Your task to perform on an android device: Find coffee shops on Maps Image 0: 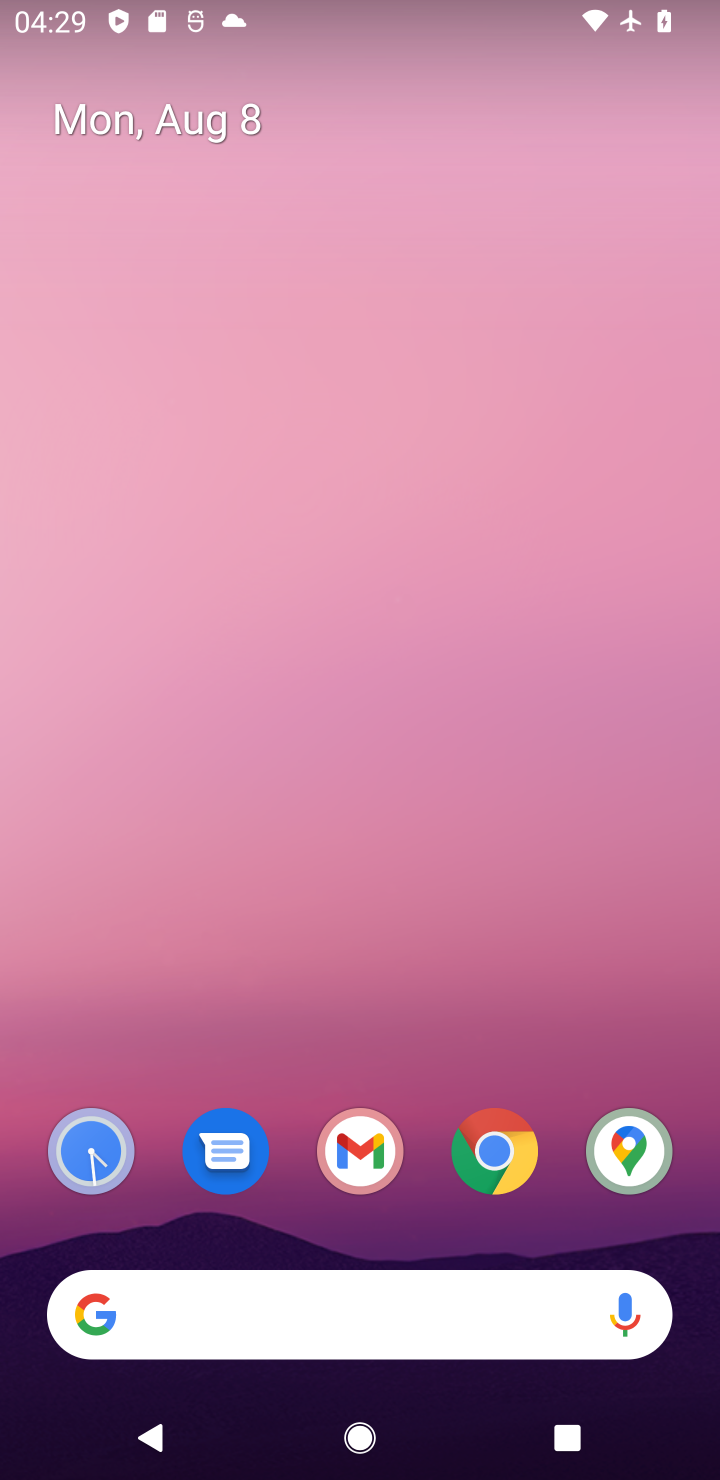
Step 0: click (610, 1134)
Your task to perform on an android device: Find coffee shops on Maps Image 1: 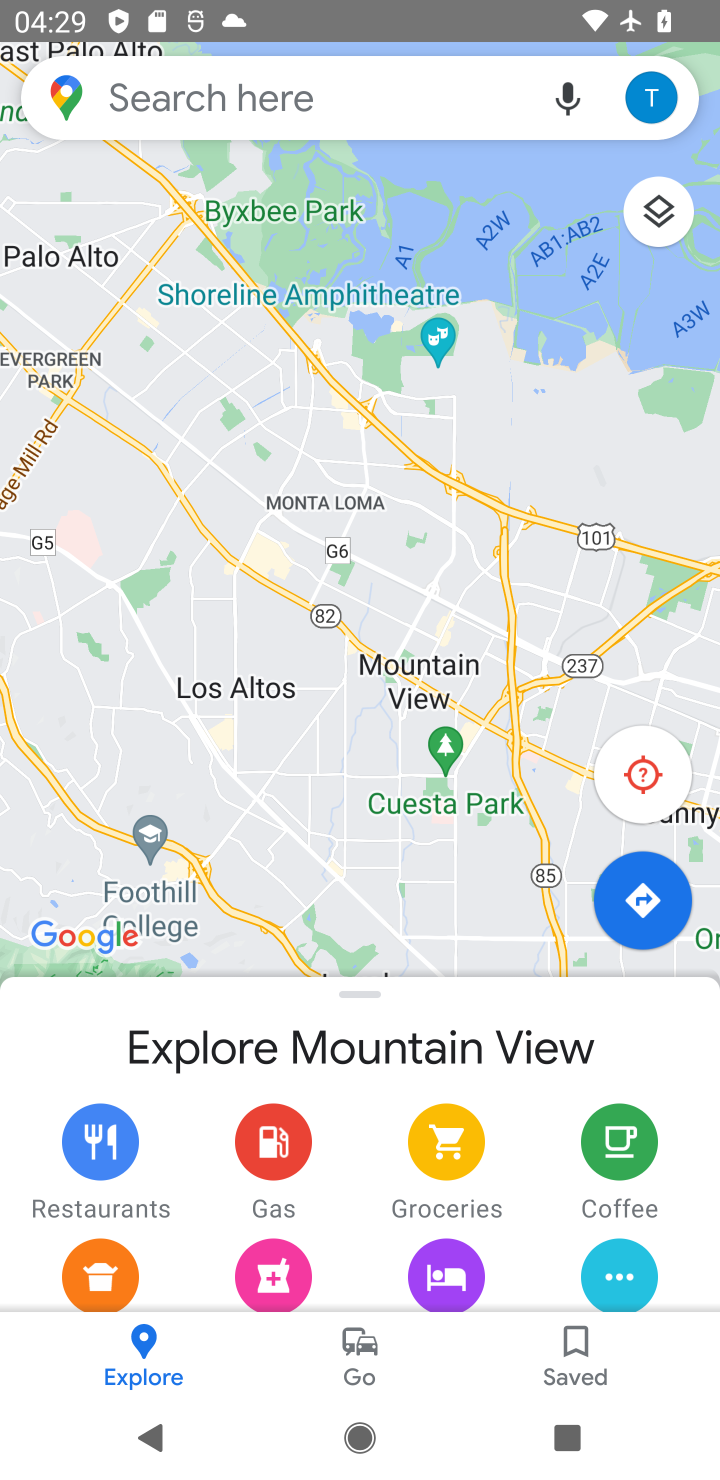
Step 1: click (257, 92)
Your task to perform on an android device: Find coffee shops on Maps Image 2: 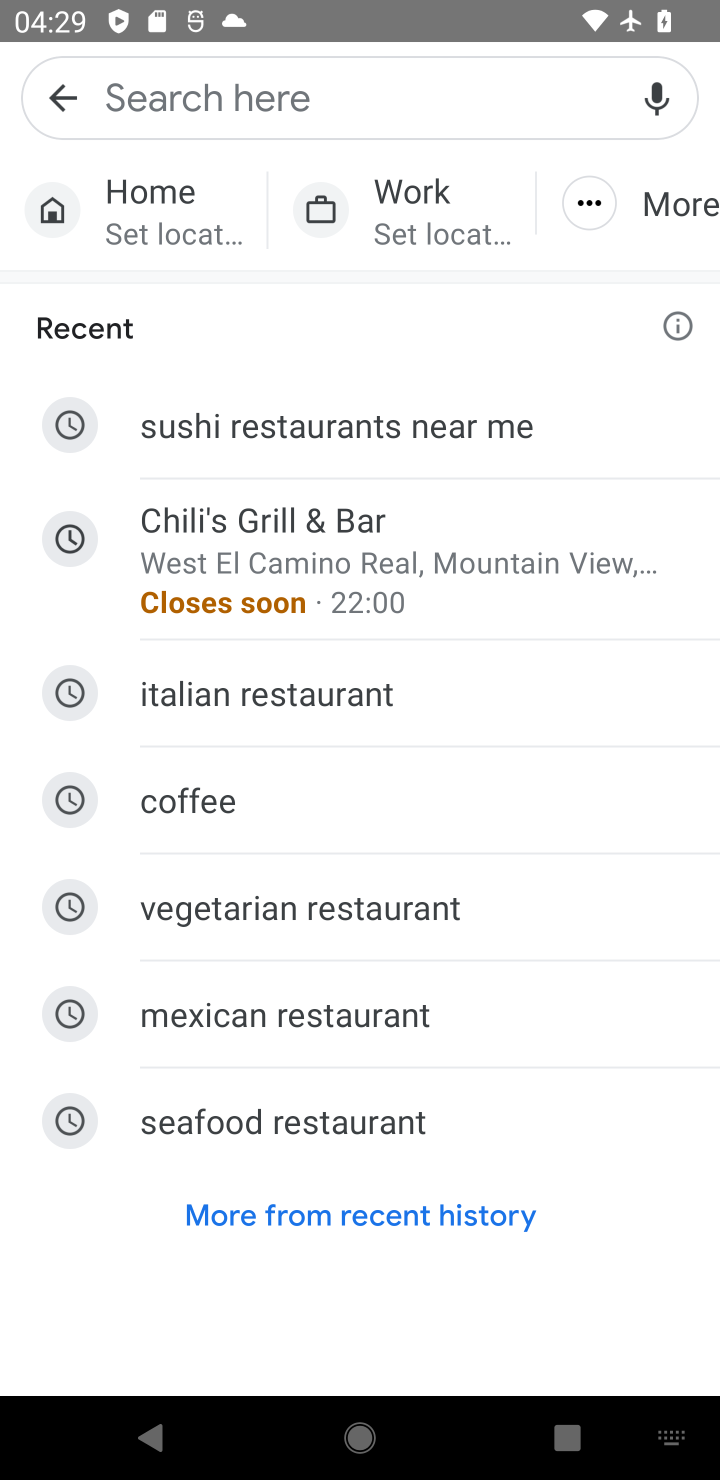
Step 2: type "coffee shops"
Your task to perform on an android device: Find coffee shops on Maps Image 3: 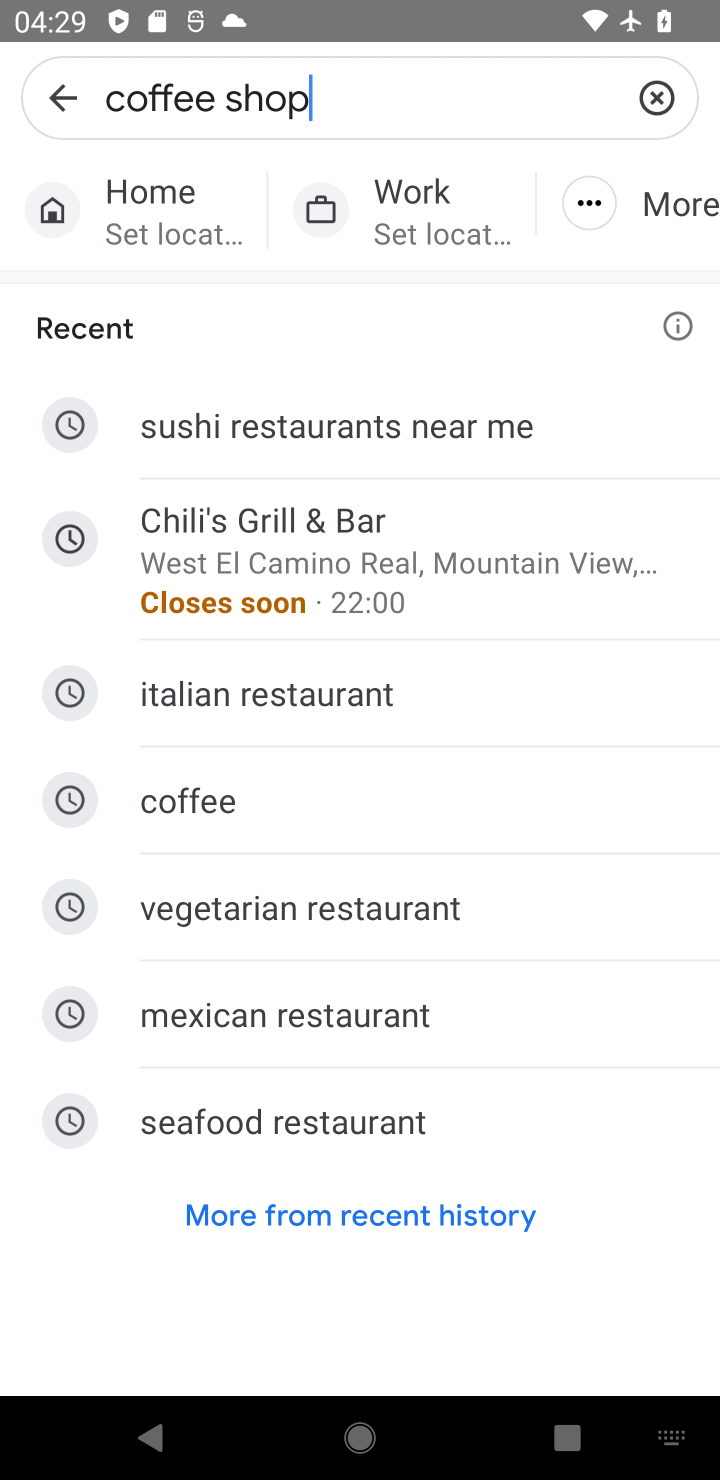
Step 3: type ""
Your task to perform on an android device: Find coffee shops on Maps Image 4: 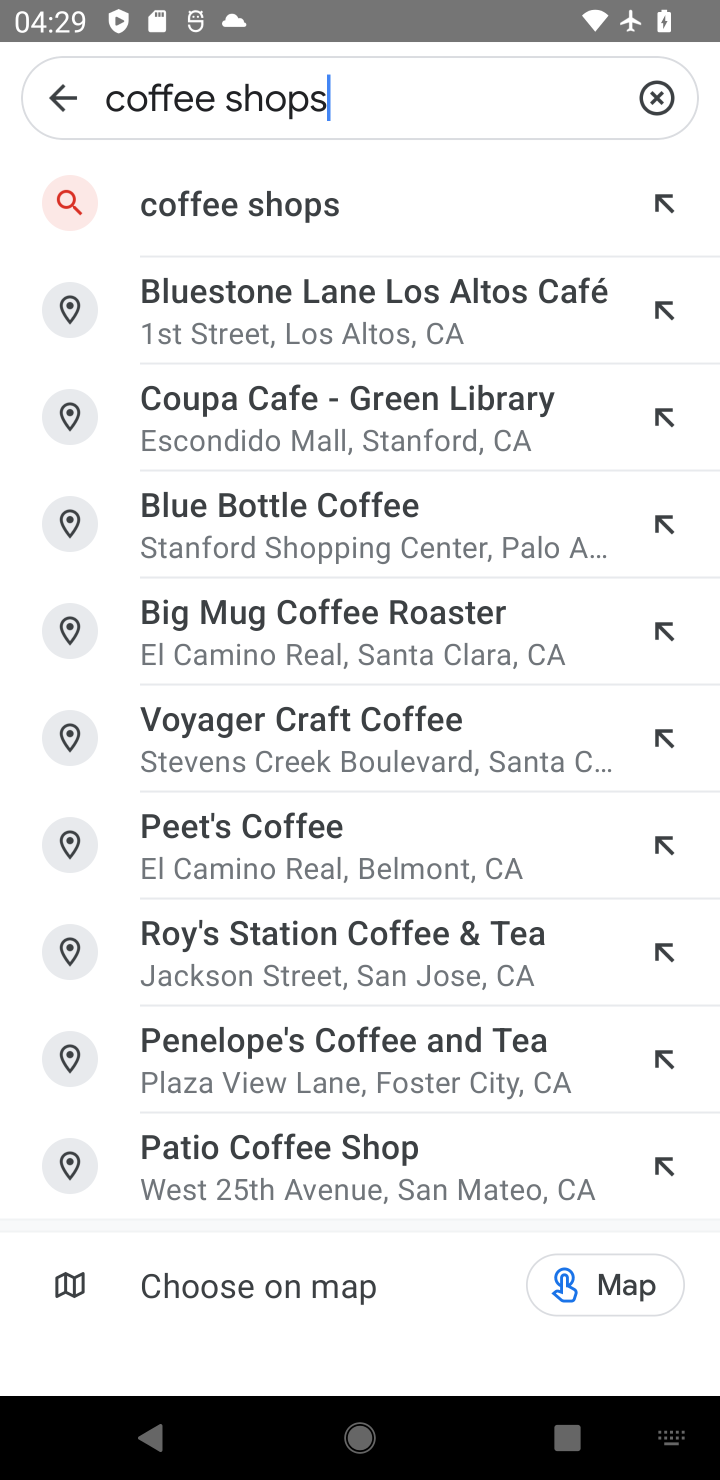
Step 4: click (326, 213)
Your task to perform on an android device: Find coffee shops on Maps Image 5: 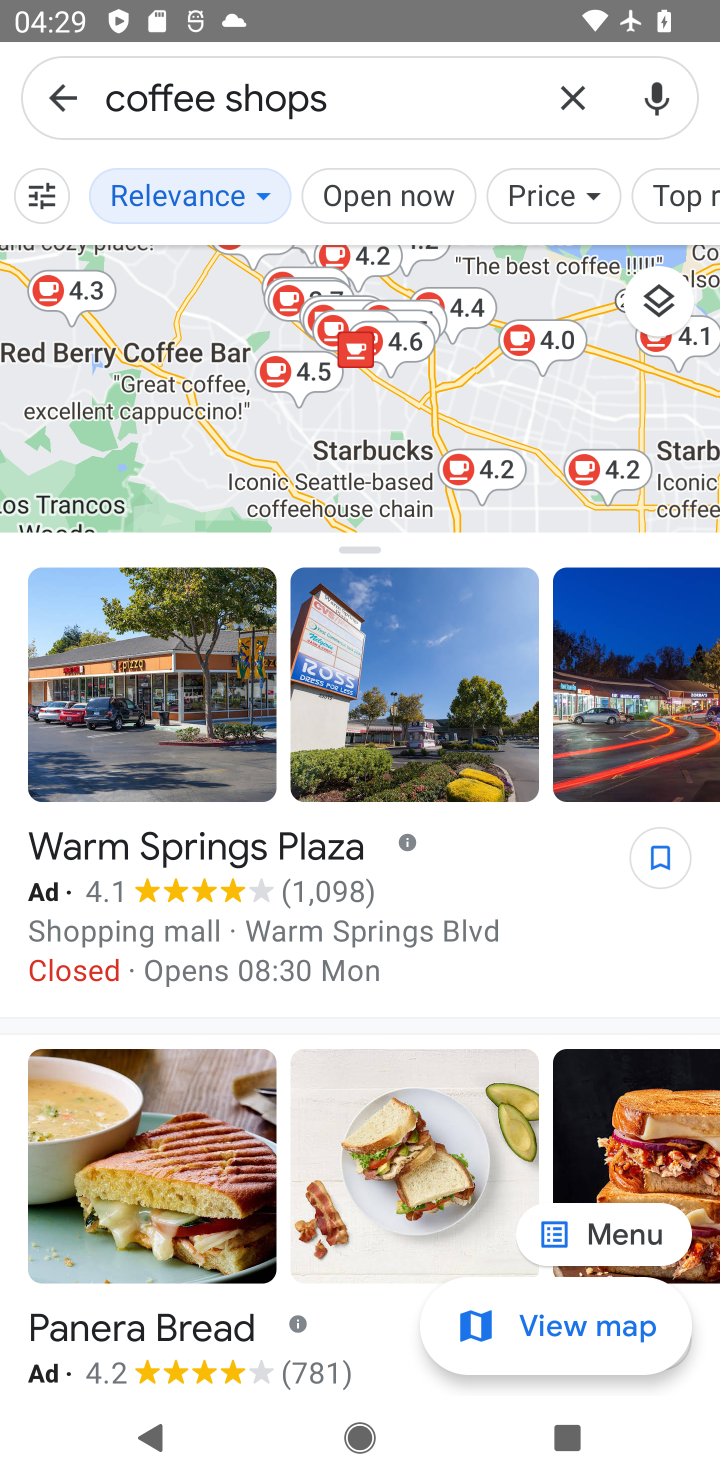
Step 5: task complete